Your task to perform on an android device: open sync settings in chrome Image 0: 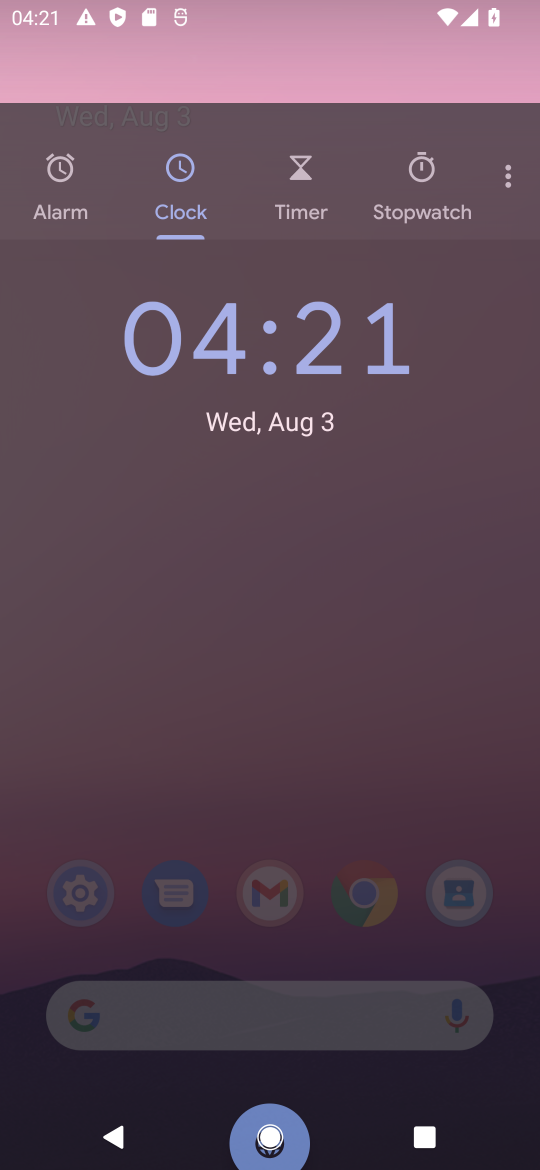
Step 0: press home button
Your task to perform on an android device: open sync settings in chrome Image 1: 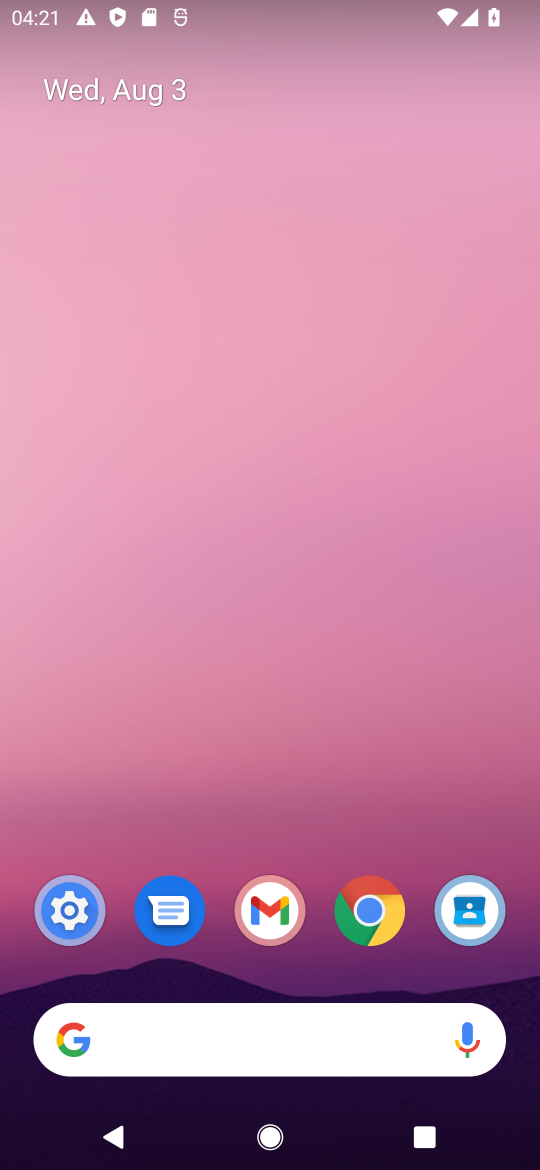
Step 1: click (368, 902)
Your task to perform on an android device: open sync settings in chrome Image 2: 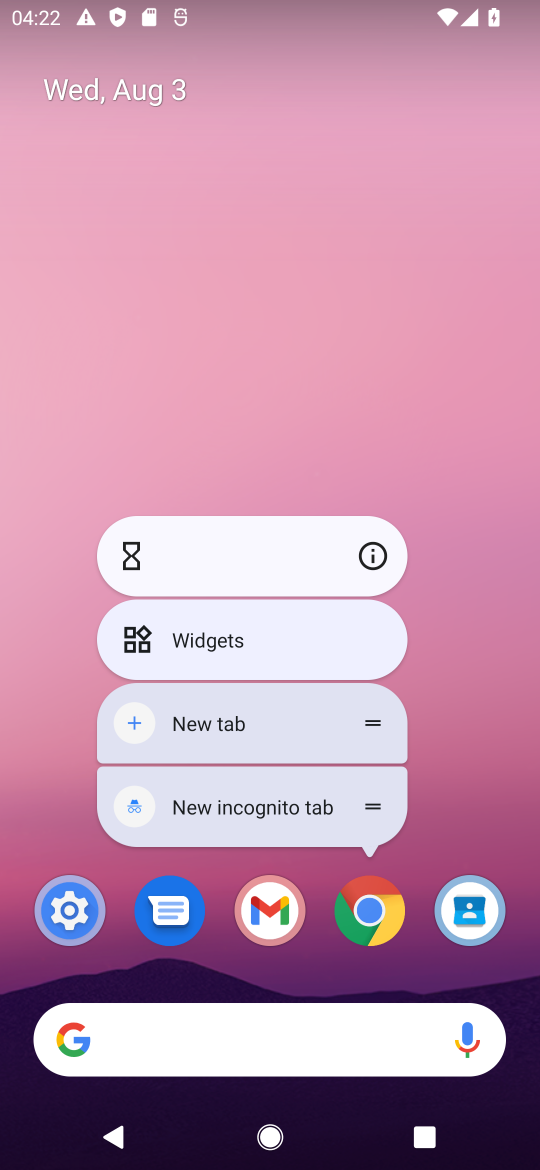
Step 2: click (463, 694)
Your task to perform on an android device: open sync settings in chrome Image 3: 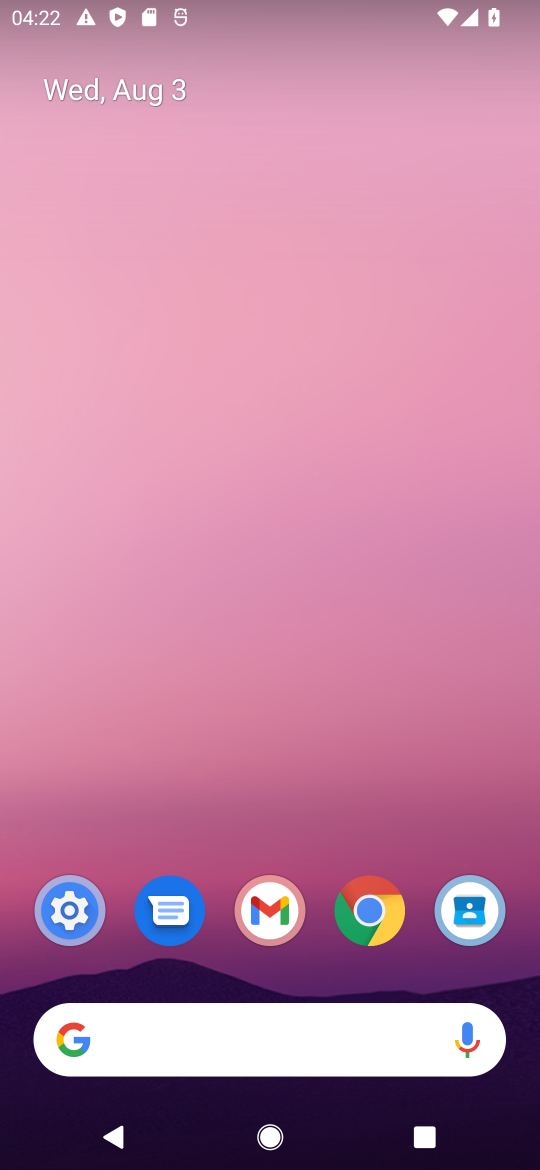
Step 3: click (363, 899)
Your task to perform on an android device: open sync settings in chrome Image 4: 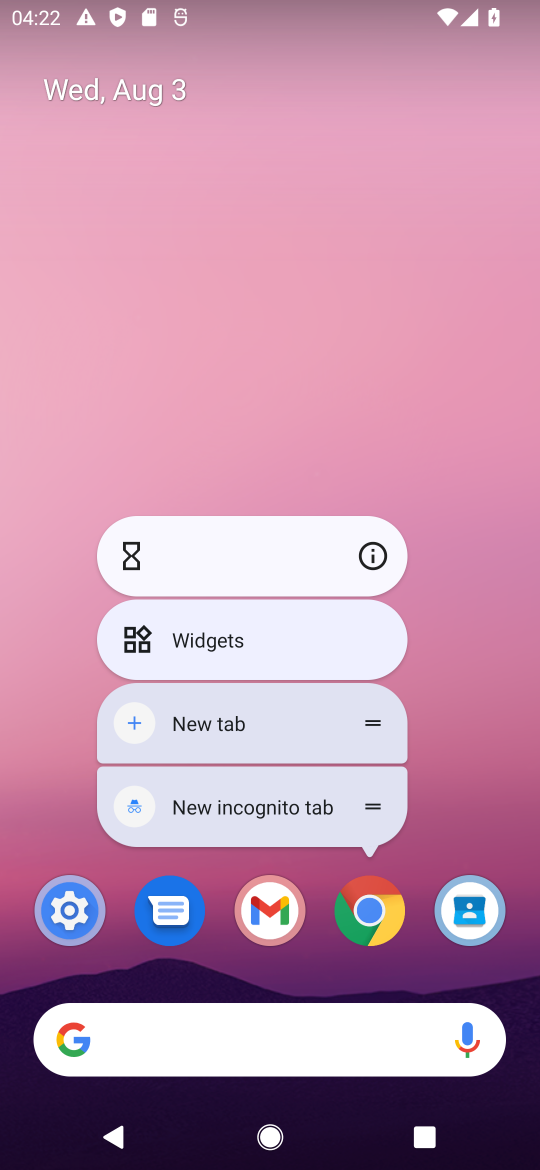
Step 4: click (363, 899)
Your task to perform on an android device: open sync settings in chrome Image 5: 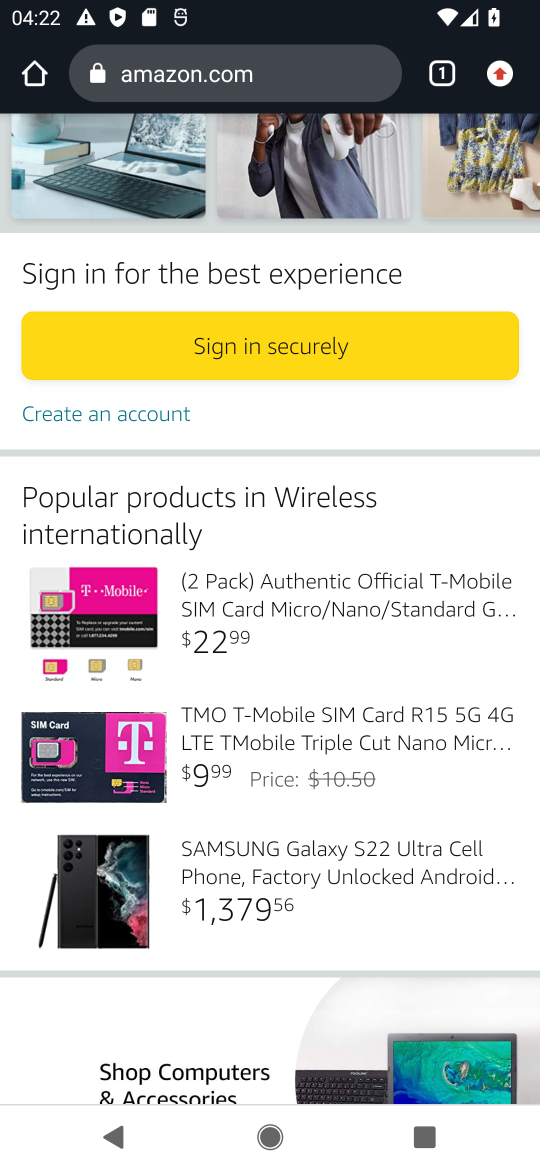
Step 5: click (495, 64)
Your task to perform on an android device: open sync settings in chrome Image 6: 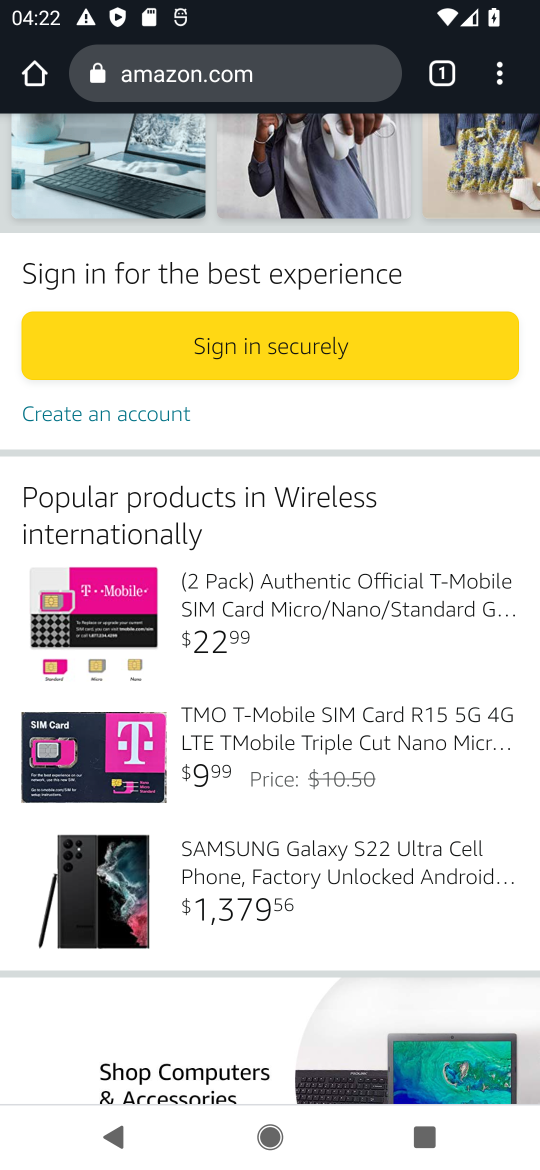
Step 6: click (502, 77)
Your task to perform on an android device: open sync settings in chrome Image 7: 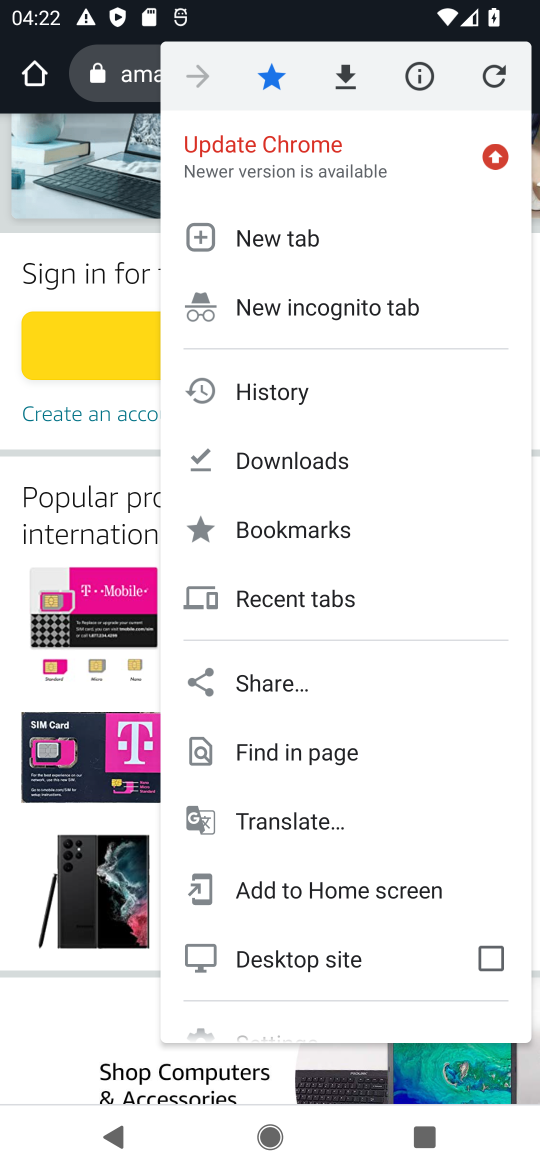
Step 7: drag from (317, 923) to (351, 353)
Your task to perform on an android device: open sync settings in chrome Image 8: 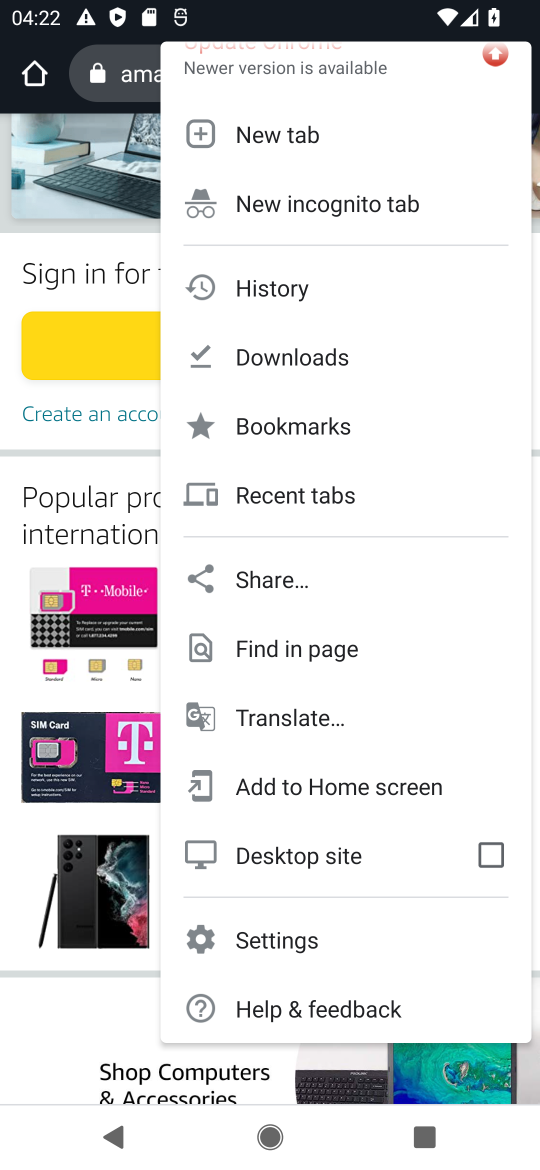
Step 8: click (323, 938)
Your task to perform on an android device: open sync settings in chrome Image 9: 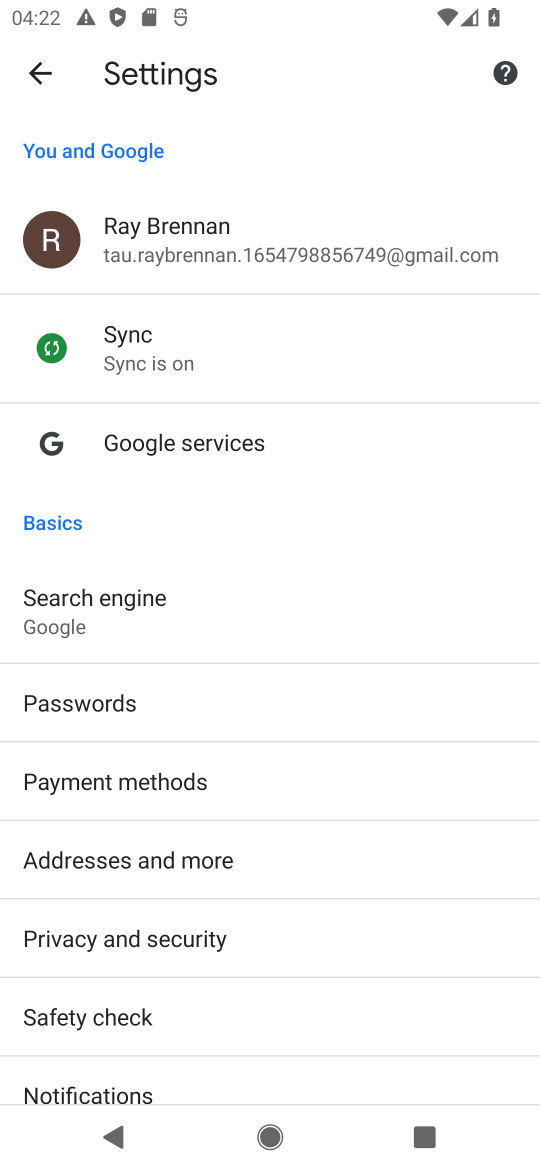
Step 9: click (209, 360)
Your task to perform on an android device: open sync settings in chrome Image 10: 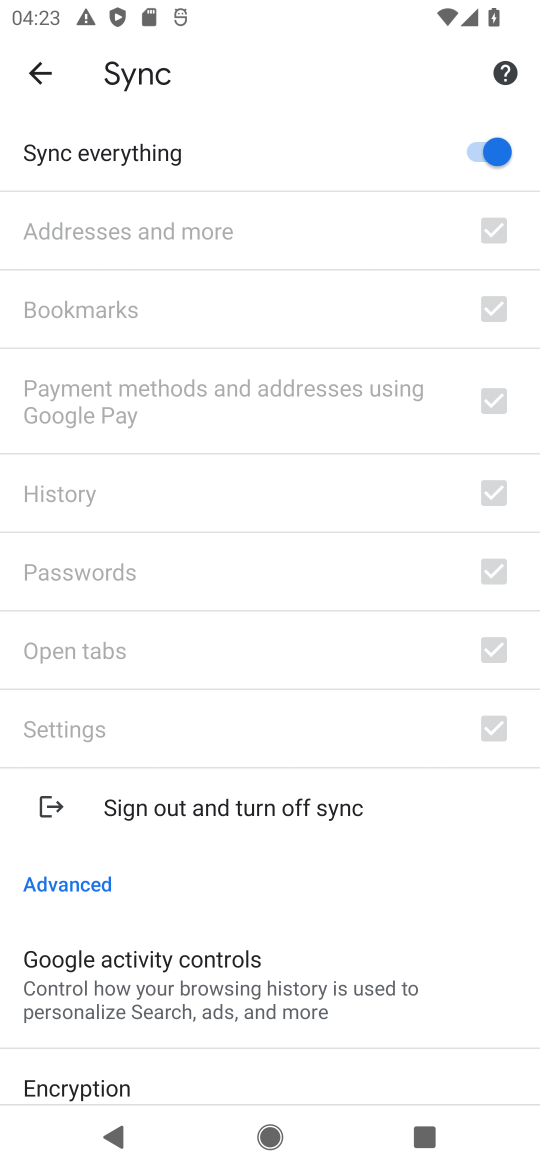
Step 10: task complete